Your task to perform on an android device: Open location settings Image 0: 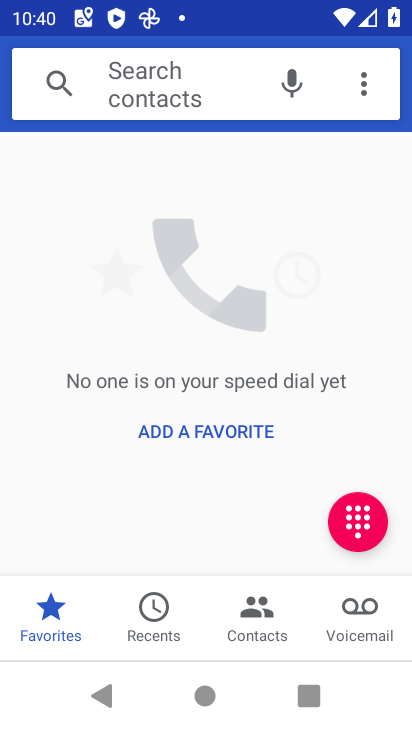
Step 0: press home button
Your task to perform on an android device: Open location settings Image 1: 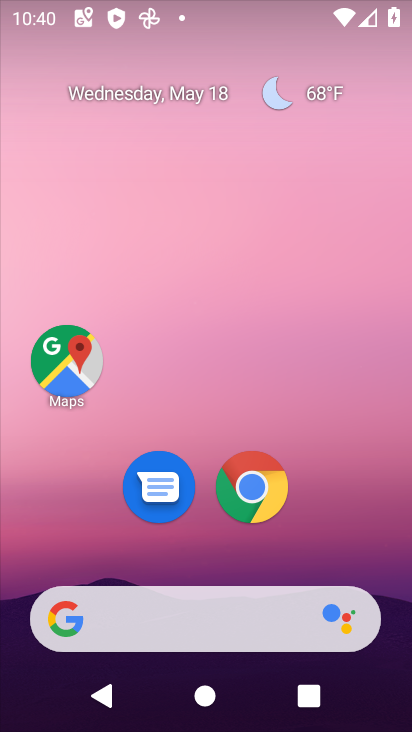
Step 1: drag from (361, 538) to (315, 194)
Your task to perform on an android device: Open location settings Image 2: 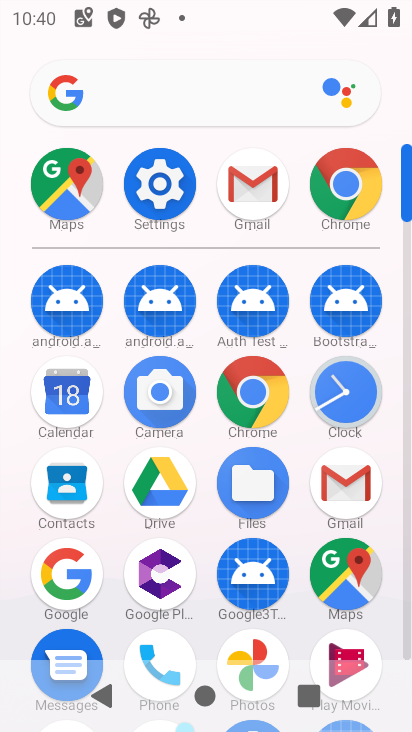
Step 2: click (163, 195)
Your task to perform on an android device: Open location settings Image 3: 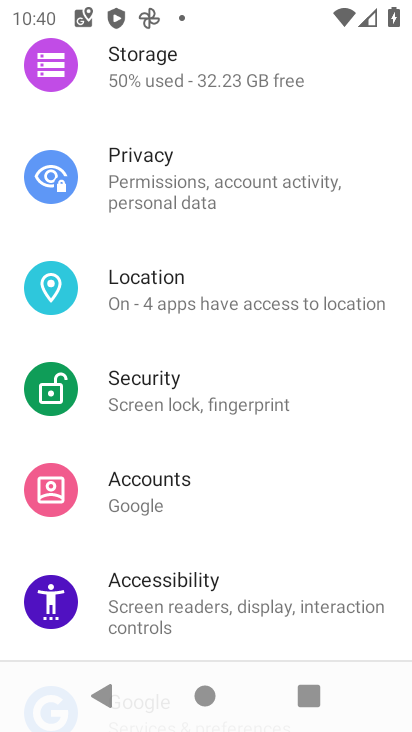
Step 3: click (178, 299)
Your task to perform on an android device: Open location settings Image 4: 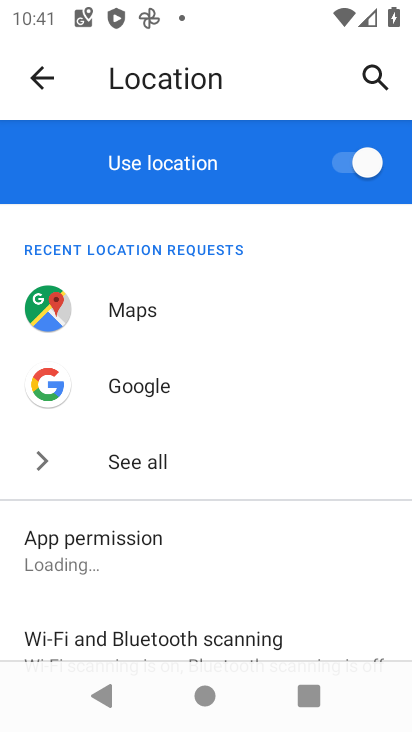
Step 4: task complete